Your task to perform on an android device: move a message to another label in the gmail app Image 0: 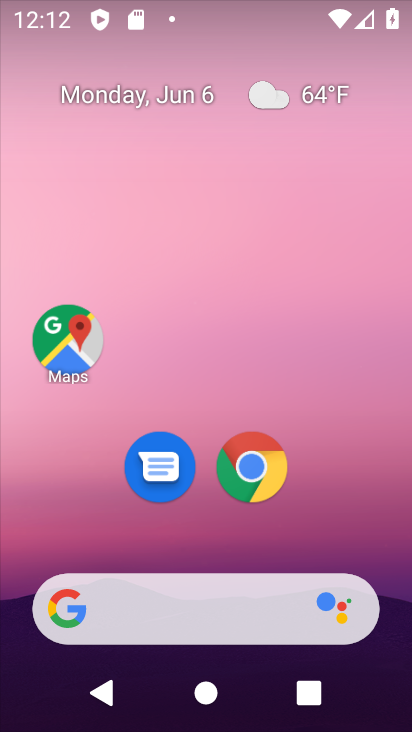
Step 0: drag from (393, 607) to (296, 55)
Your task to perform on an android device: move a message to another label in the gmail app Image 1: 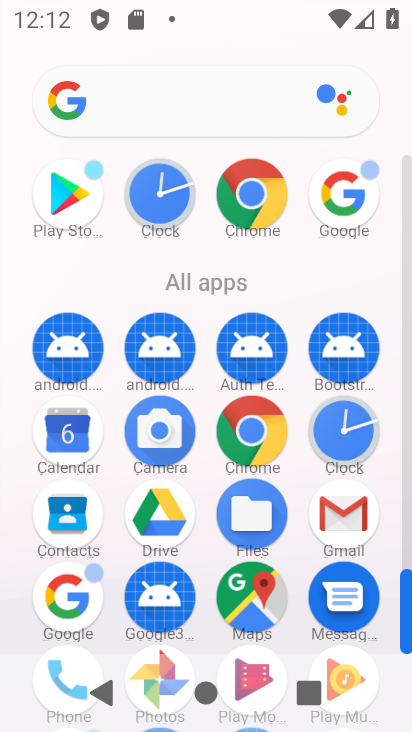
Step 1: click (340, 515)
Your task to perform on an android device: move a message to another label in the gmail app Image 2: 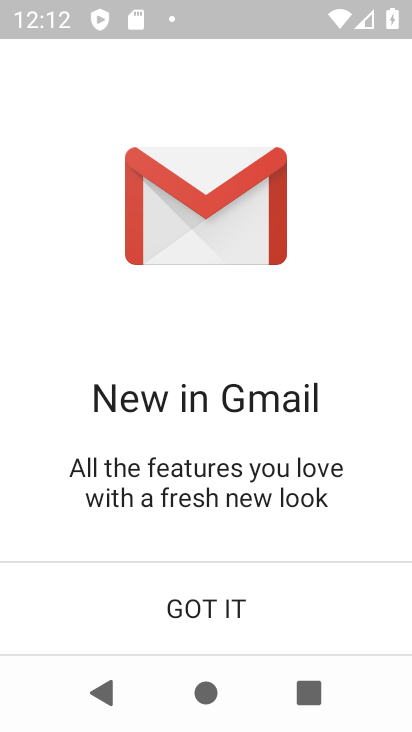
Step 2: click (191, 584)
Your task to perform on an android device: move a message to another label in the gmail app Image 3: 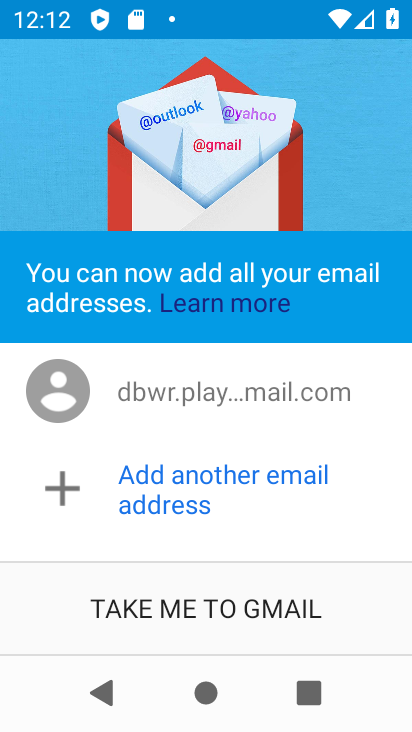
Step 3: click (191, 584)
Your task to perform on an android device: move a message to another label in the gmail app Image 4: 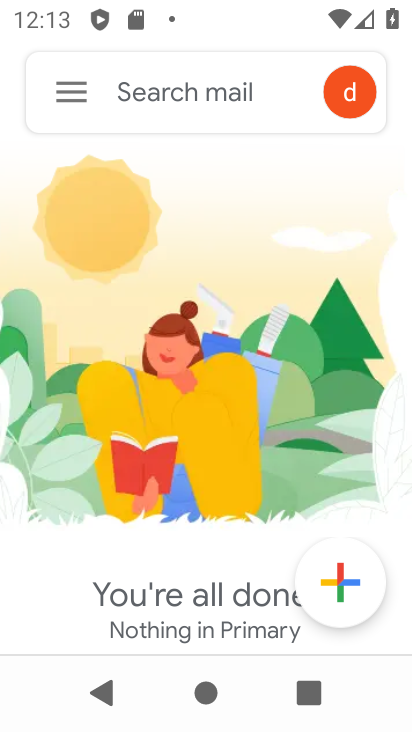
Step 4: task complete